Your task to perform on an android device: turn off wifi Image 0: 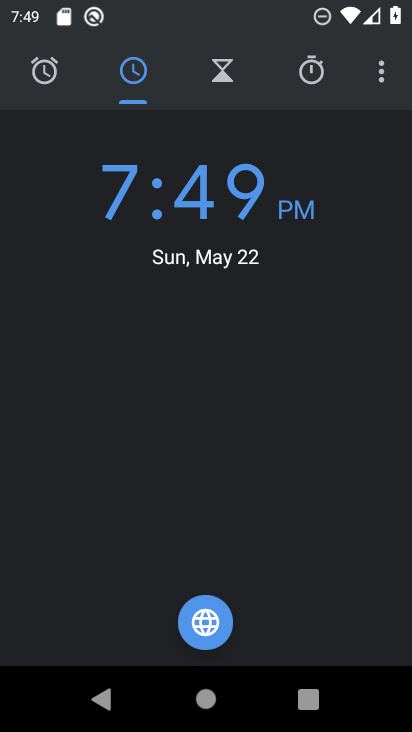
Step 0: press home button
Your task to perform on an android device: turn off wifi Image 1: 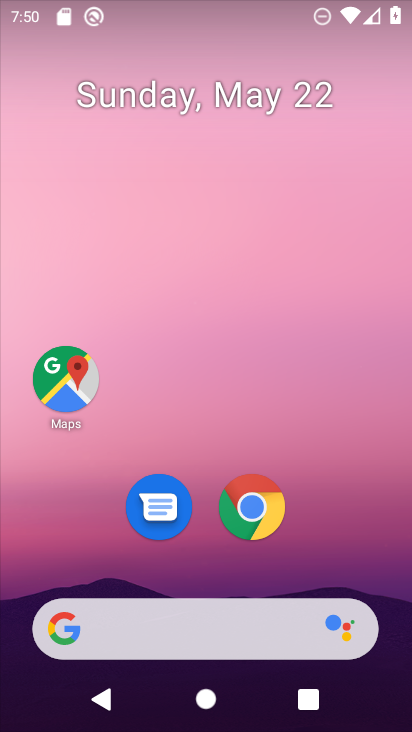
Step 1: drag from (153, 643) to (138, 44)
Your task to perform on an android device: turn off wifi Image 2: 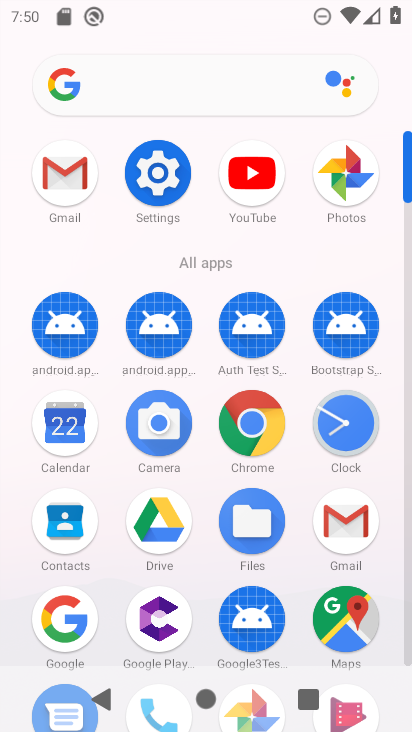
Step 2: click (142, 172)
Your task to perform on an android device: turn off wifi Image 3: 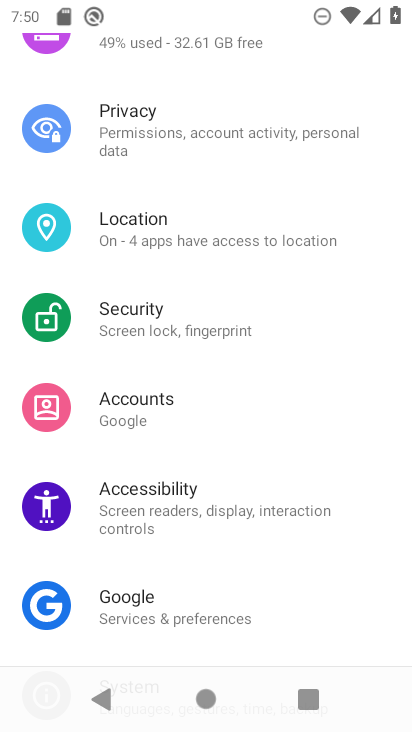
Step 3: drag from (258, 196) to (212, 660)
Your task to perform on an android device: turn off wifi Image 4: 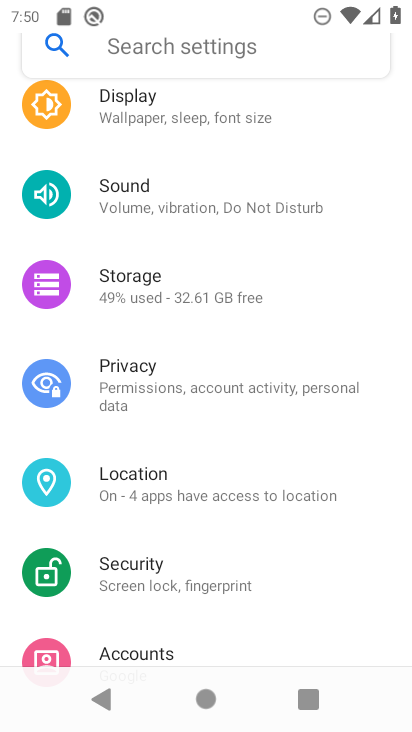
Step 4: drag from (301, 201) to (284, 652)
Your task to perform on an android device: turn off wifi Image 5: 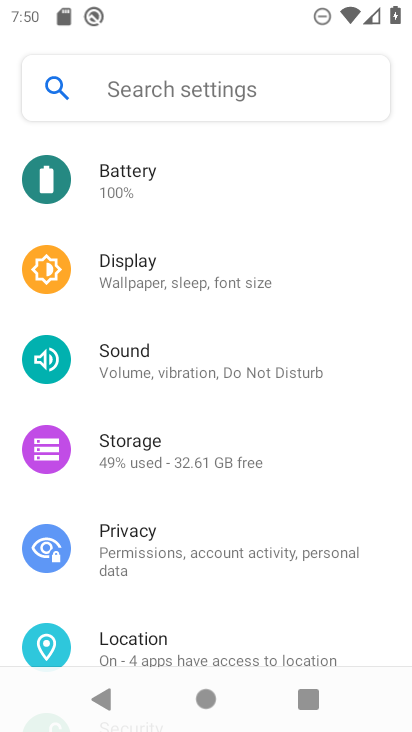
Step 5: drag from (199, 237) to (233, 726)
Your task to perform on an android device: turn off wifi Image 6: 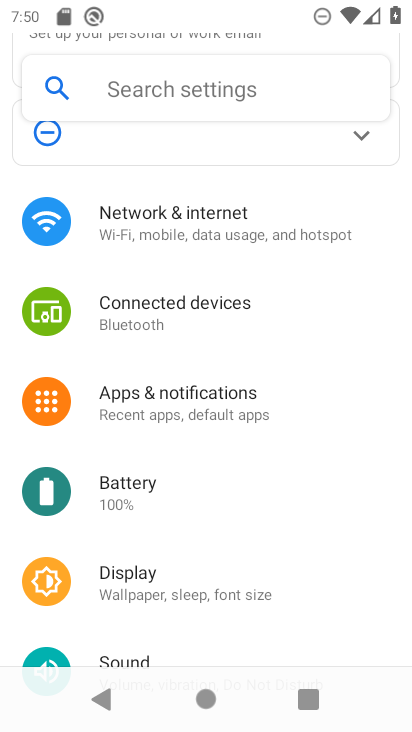
Step 6: drag from (305, 263) to (288, 653)
Your task to perform on an android device: turn off wifi Image 7: 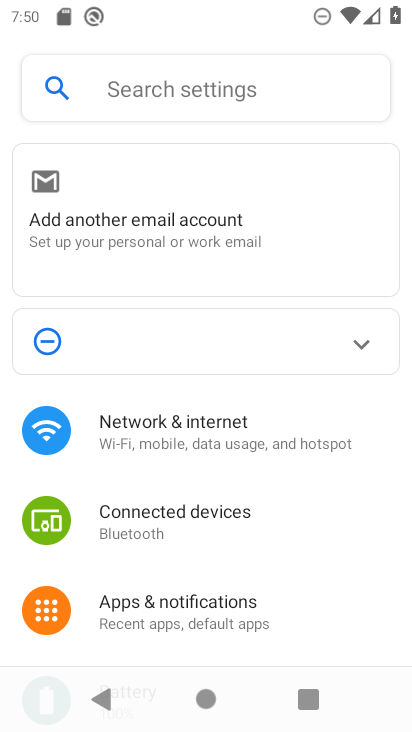
Step 7: click (295, 455)
Your task to perform on an android device: turn off wifi Image 8: 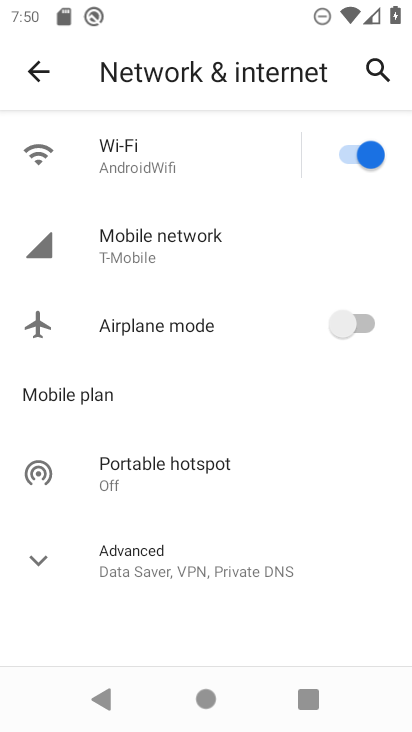
Step 8: click (374, 156)
Your task to perform on an android device: turn off wifi Image 9: 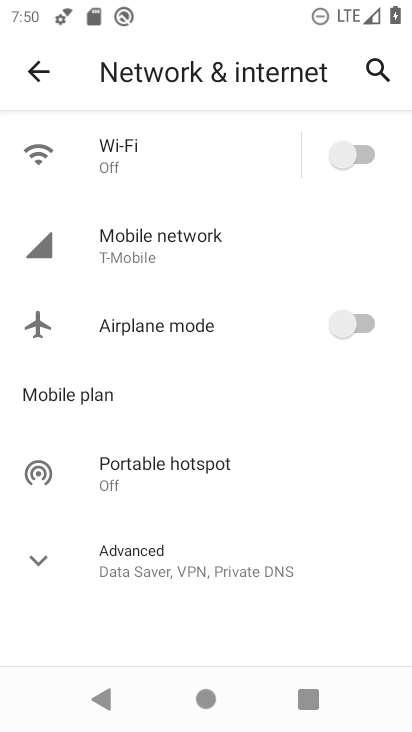
Step 9: task complete